Your task to perform on an android device: toggle show notifications on the lock screen Image 0: 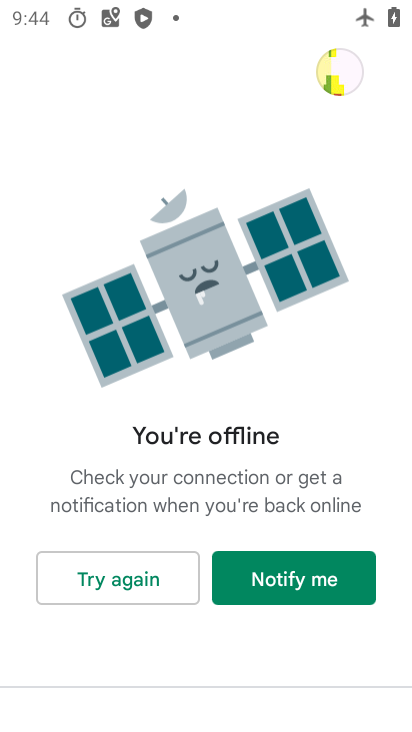
Step 0: press home button
Your task to perform on an android device: toggle show notifications on the lock screen Image 1: 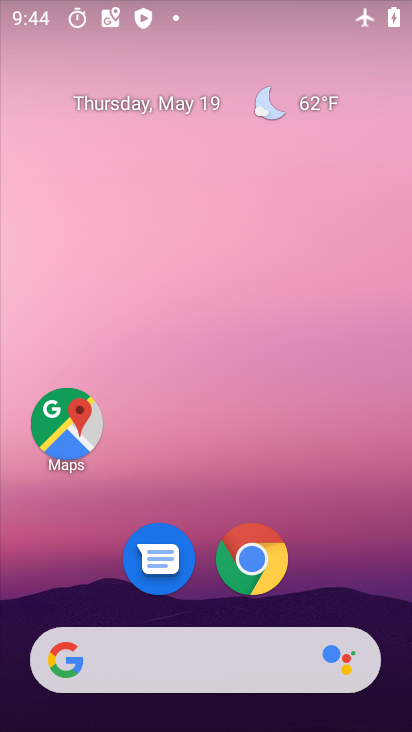
Step 1: drag from (346, 451) to (347, 160)
Your task to perform on an android device: toggle show notifications on the lock screen Image 2: 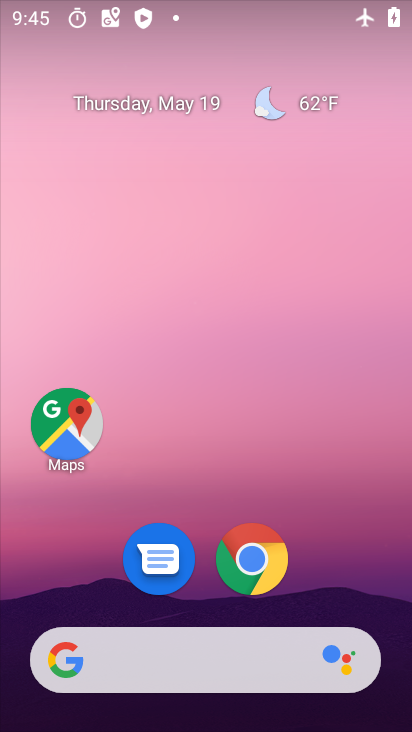
Step 2: drag from (322, 577) to (342, 174)
Your task to perform on an android device: toggle show notifications on the lock screen Image 3: 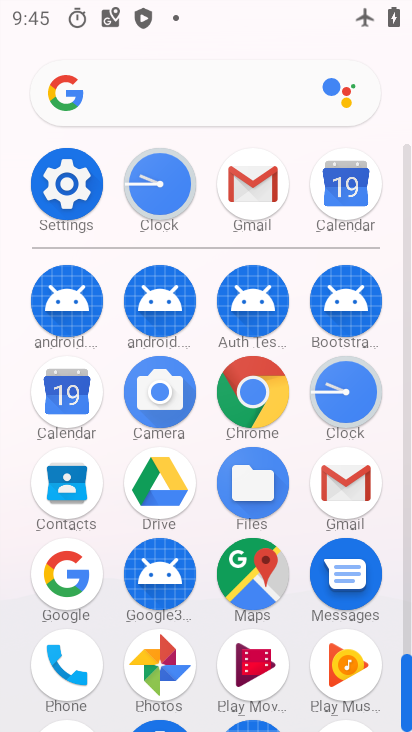
Step 3: click (69, 191)
Your task to perform on an android device: toggle show notifications on the lock screen Image 4: 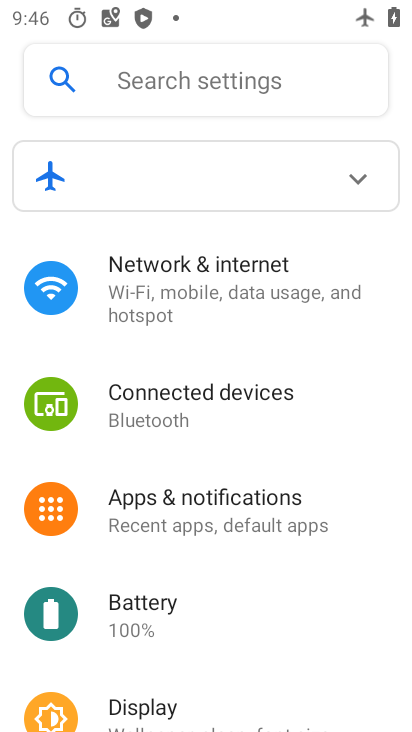
Step 4: click (213, 494)
Your task to perform on an android device: toggle show notifications on the lock screen Image 5: 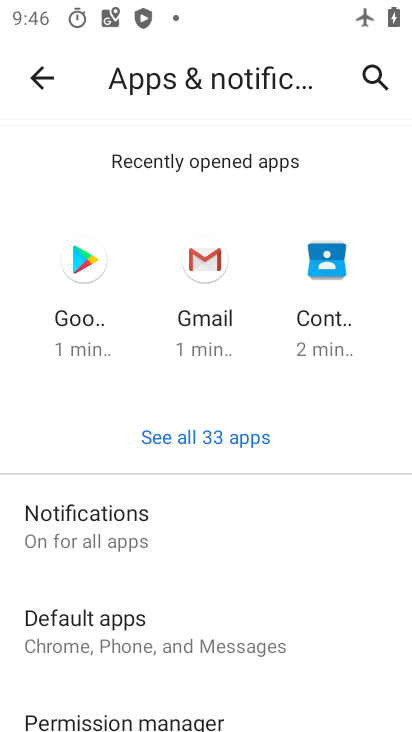
Step 5: drag from (201, 551) to (272, 194)
Your task to perform on an android device: toggle show notifications on the lock screen Image 6: 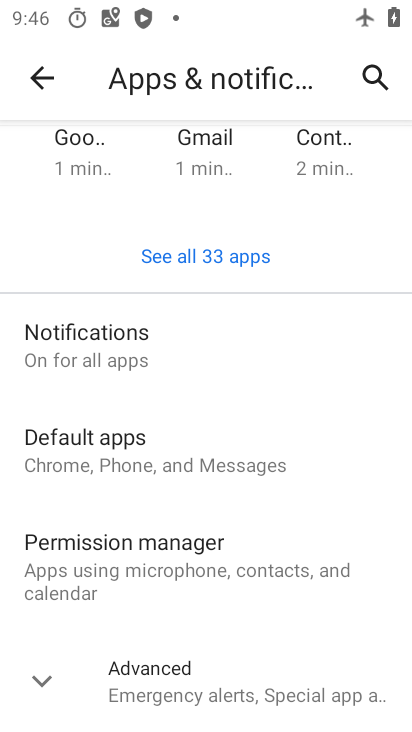
Step 6: click (151, 358)
Your task to perform on an android device: toggle show notifications on the lock screen Image 7: 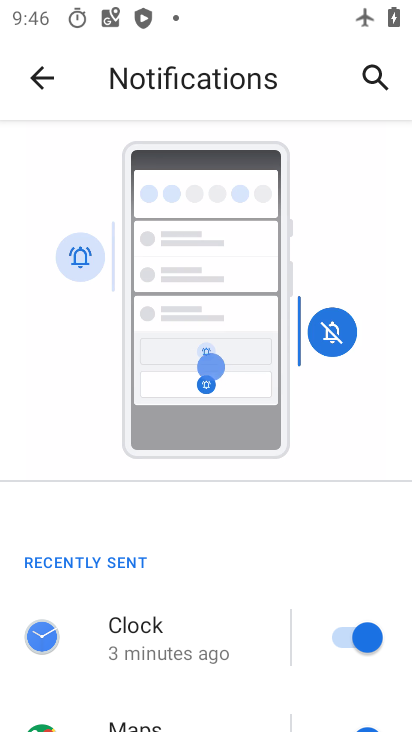
Step 7: drag from (173, 498) to (368, 98)
Your task to perform on an android device: toggle show notifications on the lock screen Image 8: 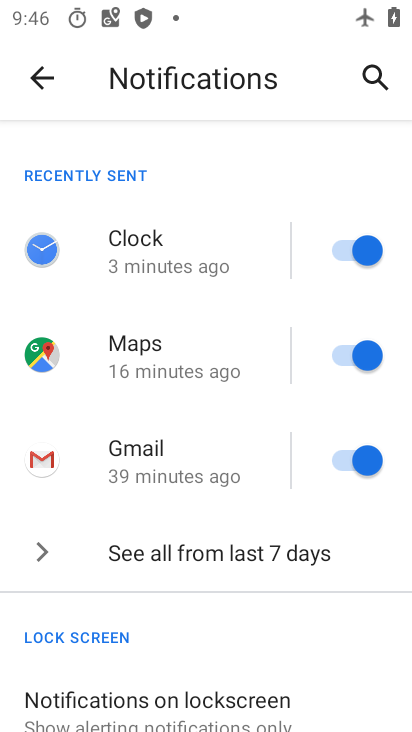
Step 8: click (167, 701)
Your task to perform on an android device: toggle show notifications on the lock screen Image 9: 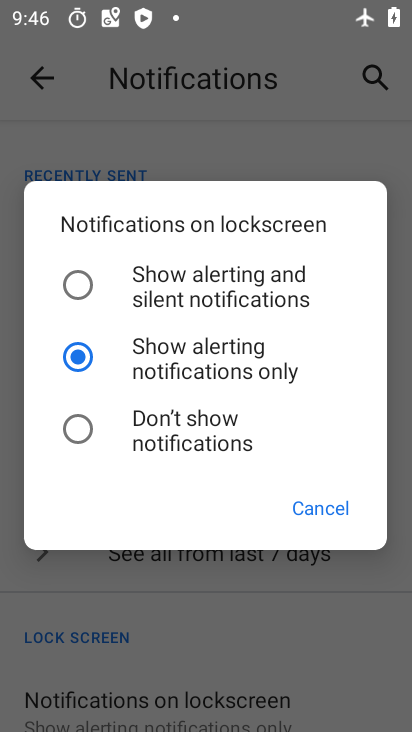
Step 9: click (194, 416)
Your task to perform on an android device: toggle show notifications on the lock screen Image 10: 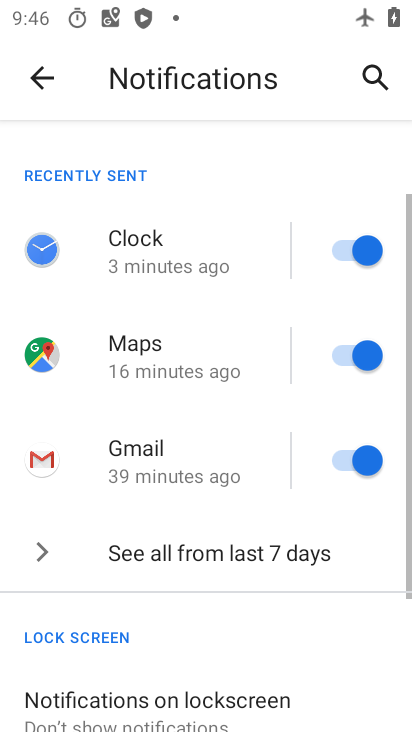
Step 10: task complete